Your task to perform on an android device: Go to Android settings Image 0: 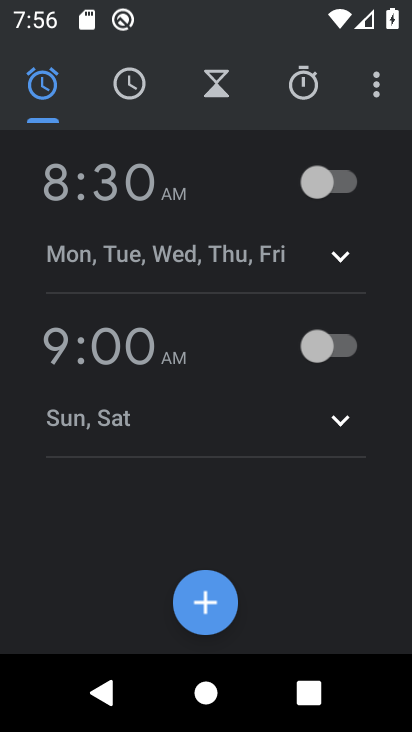
Step 0: press home button
Your task to perform on an android device: Go to Android settings Image 1: 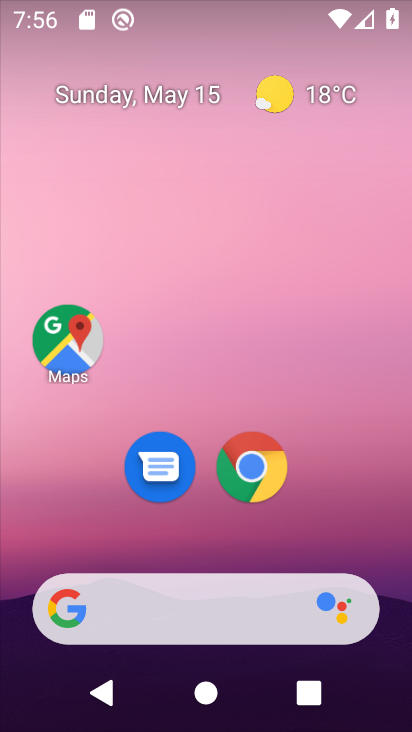
Step 1: drag from (328, 526) to (310, 0)
Your task to perform on an android device: Go to Android settings Image 2: 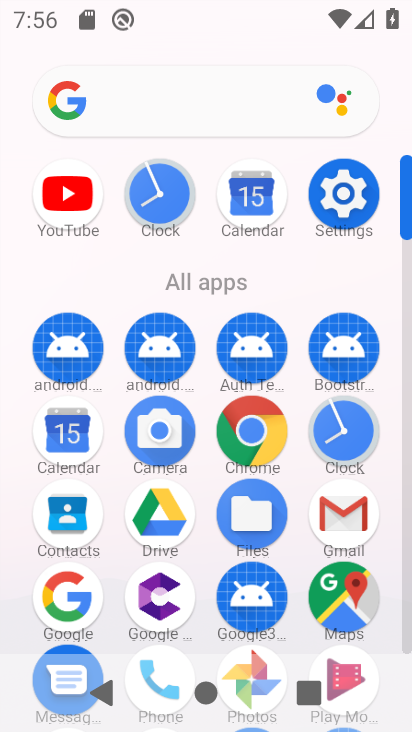
Step 2: click (331, 197)
Your task to perform on an android device: Go to Android settings Image 3: 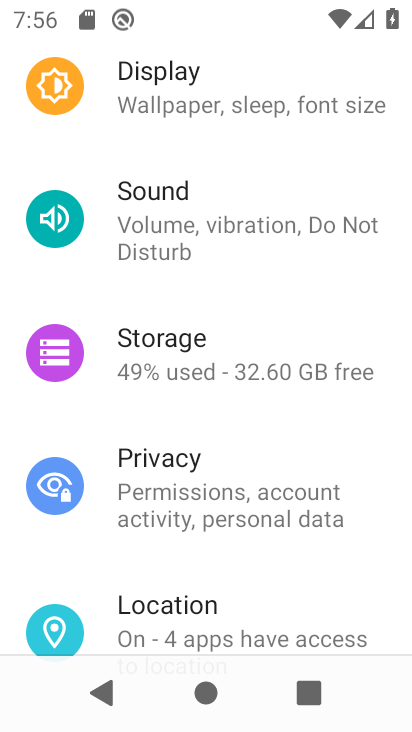
Step 3: drag from (153, 505) to (167, 354)
Your task to perform on an android device: Go to Android settings Image 4: 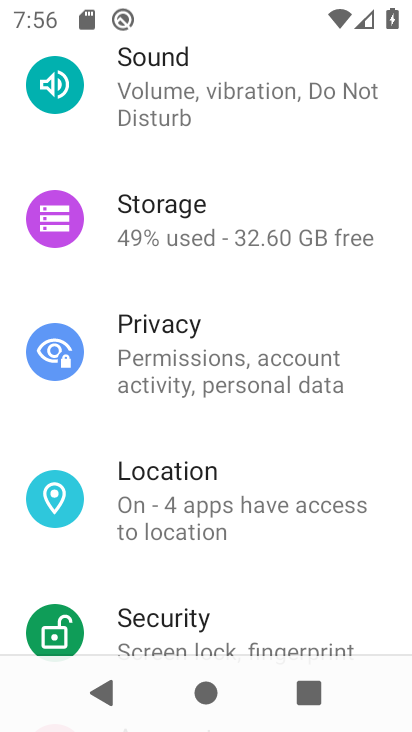
Step 4: drag from (171, 581) to (139, 429)
Your task to perform on an android device: Go to Android settings Image 5: 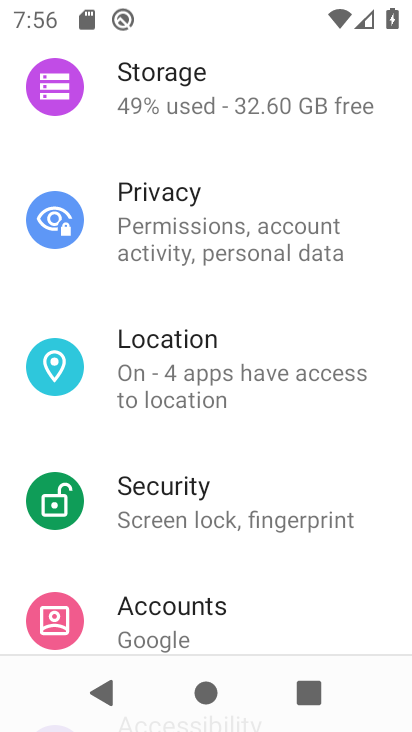
Step 5: drag from (132, 625) to (150, 478)
Your task to perform on an android device: Go to Android settings Image 6: 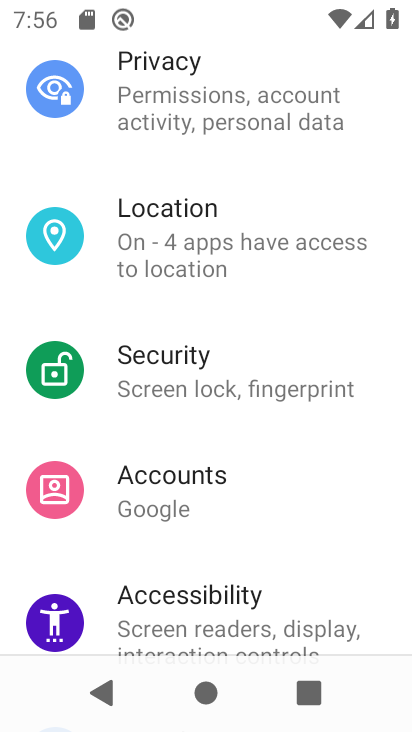
Step 6: drag from (145, 630) to (166, 473)
Your task to perform on an android device: Go to Android settings Image 7: 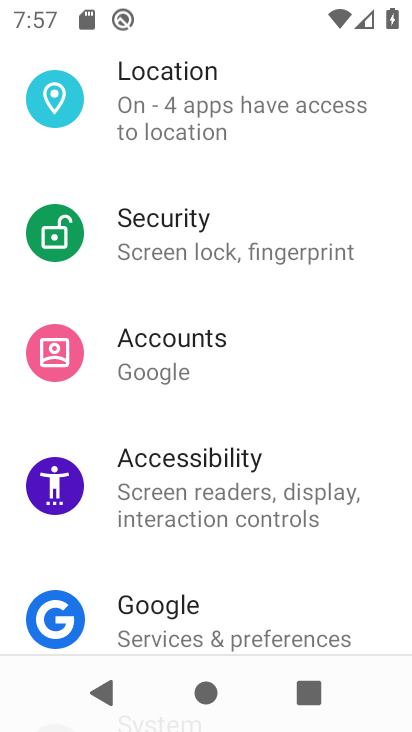
Step 7: drag from (160, 610) to (181, 443)
Your task to perform on an android device: Go to Android settings Image 8: 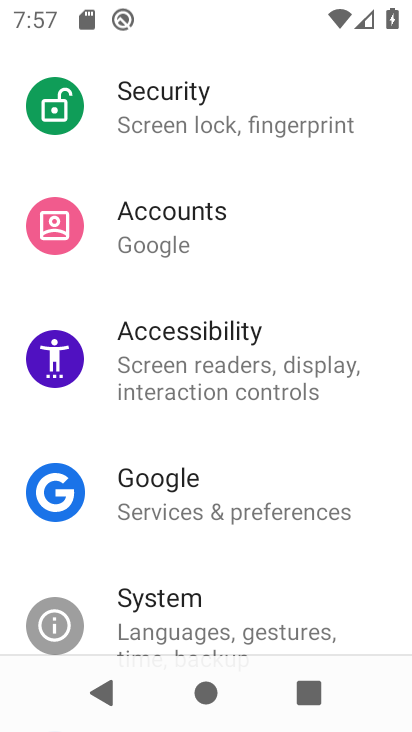
Step 8: drag from (171, 605) to (172, 501)
Your task to perform on an android device: Go to Android settings Image 9: 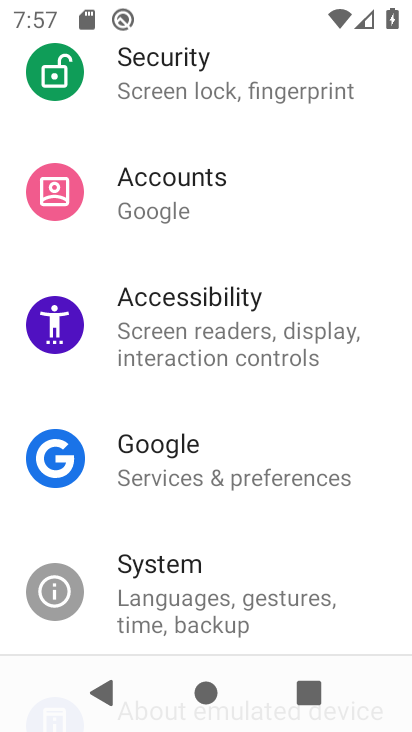
Step 9: click (152, 596)
Your task to perform on an android device: Go to Android settings Image 10: 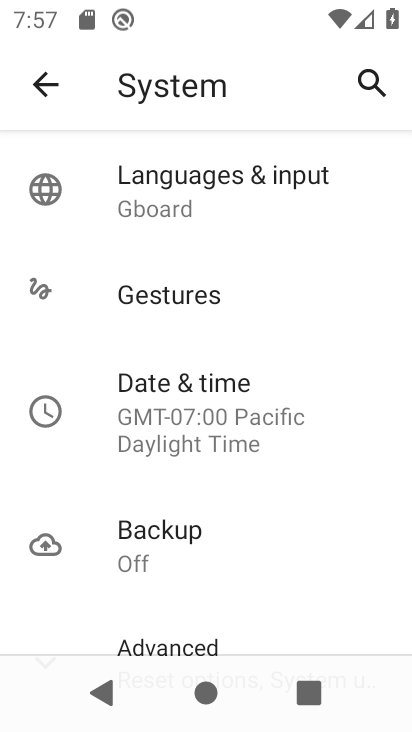
Step 10: task complete